Your task to perform on an android device: toggle location history Image 0: 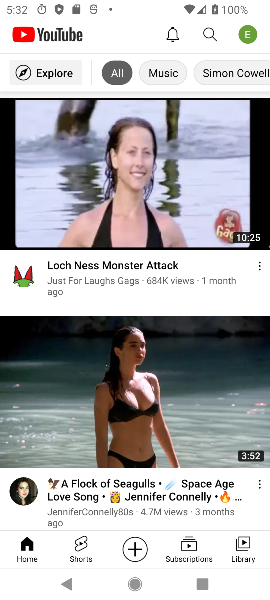
Step 0: press back button
Your task to perform on an android device: toggle location history Image 1: 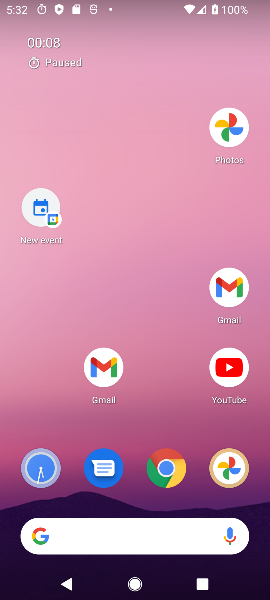
Step 1: press back button
Your task to perform on an android device: toggle location history Image 2: 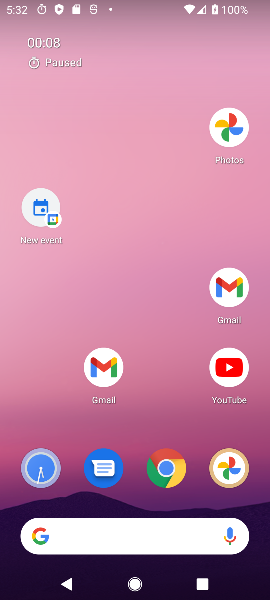
Step 2: drag from (159, 464) to (106, 173)
Your task to perform on an android device: toggle location history Image 3: 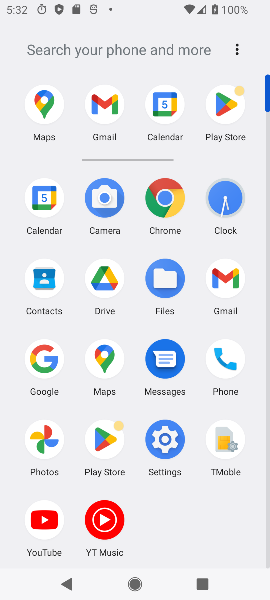
Step 3: click (165, 437)
Your task to perform on an android device: toggle location history Image 4: 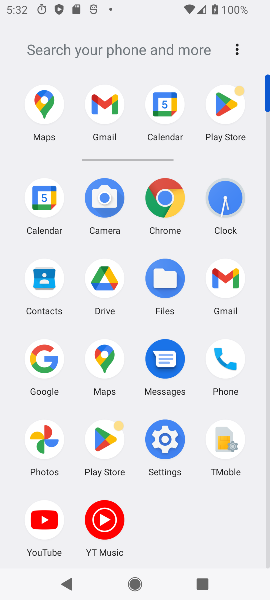
Step 4: click (165, 437)
Your task to perform on an android device: toggle location history Image 5: 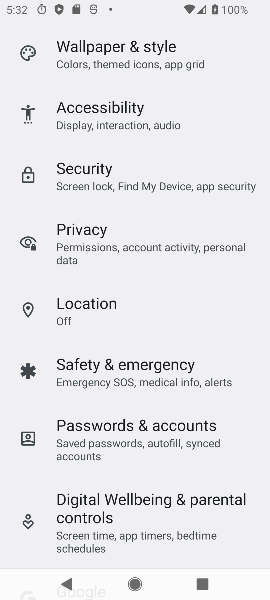
Step 5: click (165, 438)
Your task to perform on an android device: toggle location history Image 6: 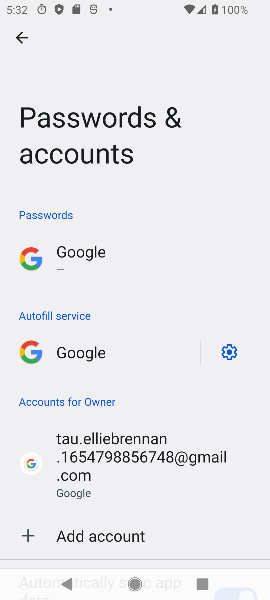
Step 6: click (21, 28)
Your task to perform on an android device: toggle location history Image 7: 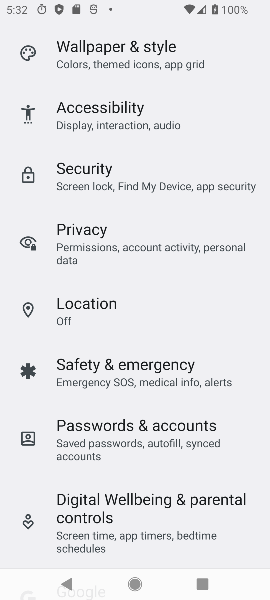
Step 7: click (82, 298)
Your task to perform on an android device: toggle location history Image 8: 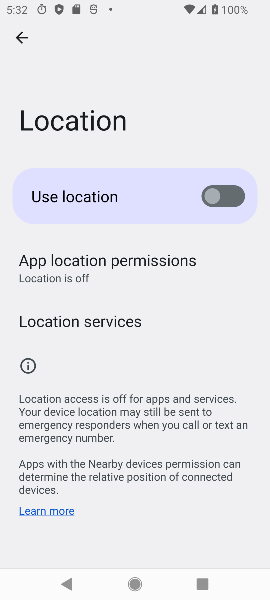
Step 8: click (63, 317)
Your task to perform on an android device: toggle location history Image 9: 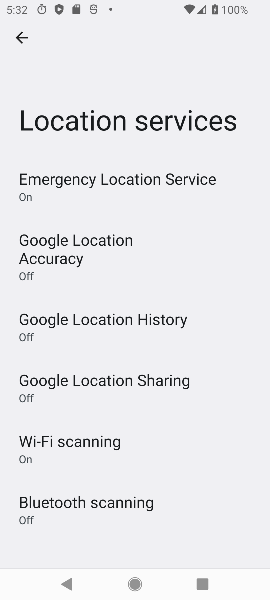
Step 9: click (85, 318)
Your task to perform on an android device: toggle location history Image 10: 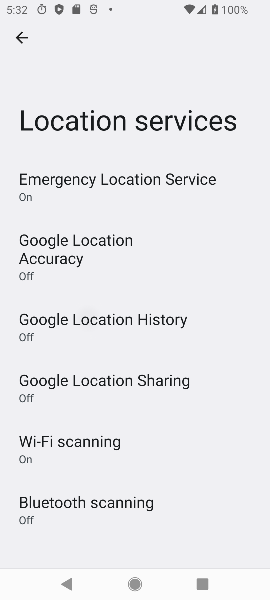
Step 10: click (85, 318)
Your task to perform on an android device: toggle location history Image 11: 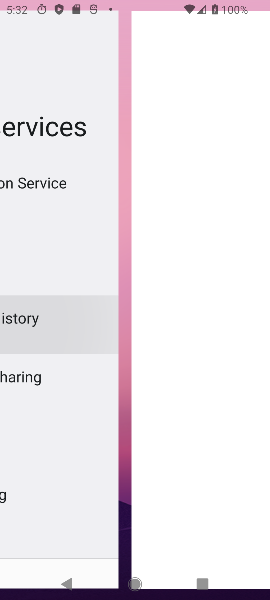
Step 11: click (85, 318)
Your task to perform on an android device: toggle location history Image 12: 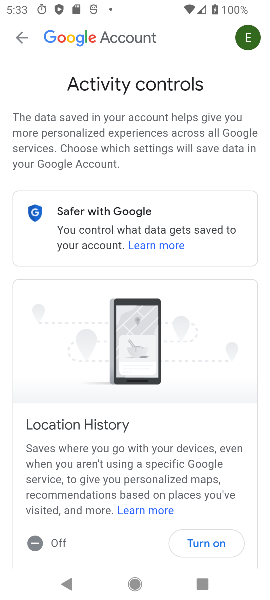
Step 12: drag from (154, 439) to (129, 157)
Your task to perform on an android device: toggle location history Image 13: 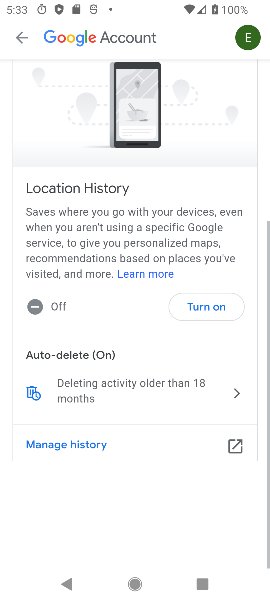
Step 13: drag from (151, 344) to (147, 159)
Your task to perform on an android device: toggle location history Image 14: 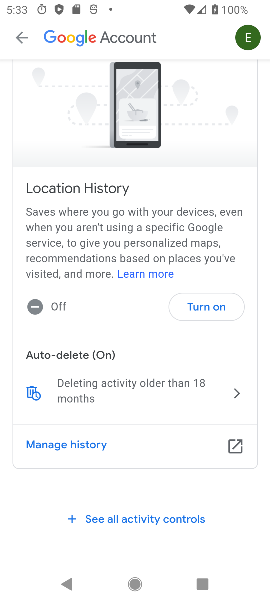
Step 14: drag from (99, 280) to (140, 442)
Your task to perform on an android device: toggle location history Image 15: 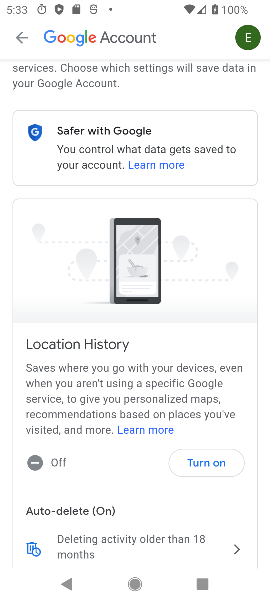
Step 15: drag from (103, 368) to (115, 416)
Your task to perform on an android device: toggle location history Image 16: 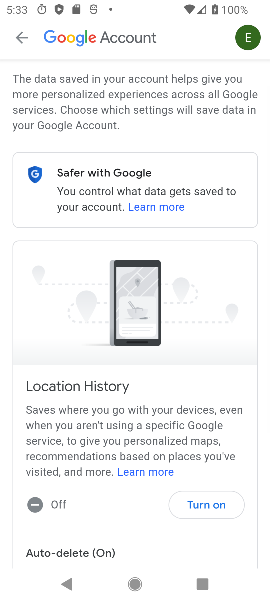
Step 16: click (209, 303)
Your task to perform on an android device: toggle location history Image 17: 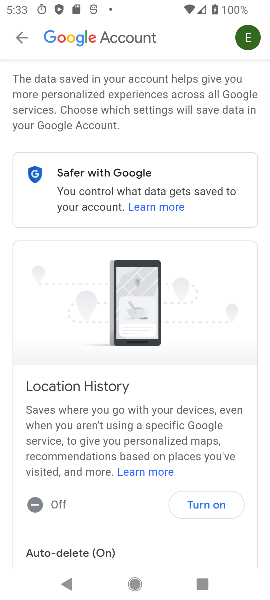
Step 17: task complete